Your task to perform on an android device: Go to Google maps Image 0: 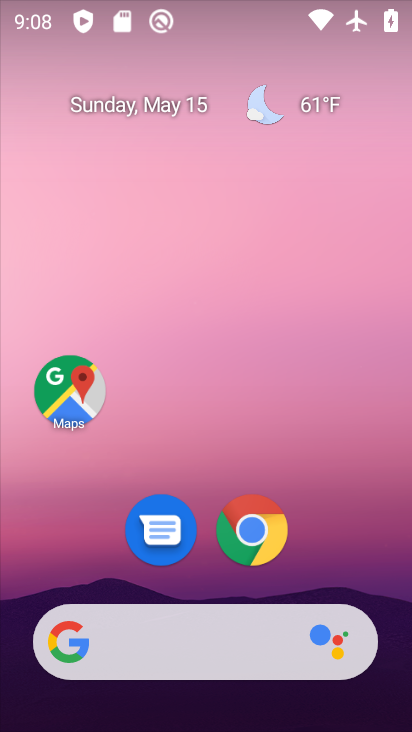
Step 0: drag from (216, 721) to (211, 90)
Your task to perform on an android device: Go to Google maps Image 1: 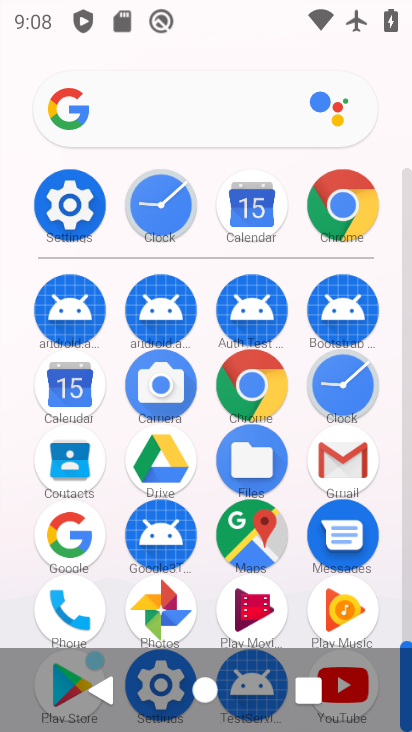
Step 1: click (245, 536)
Your task to perform on an android device: Go to Google maps Image 2: 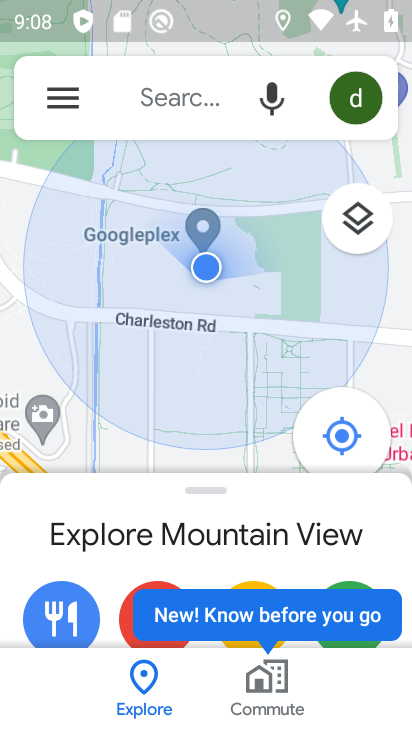
Step 2: task complete